Your task to perform on an android device: Show me productivity apps on the Play Store Image 0: 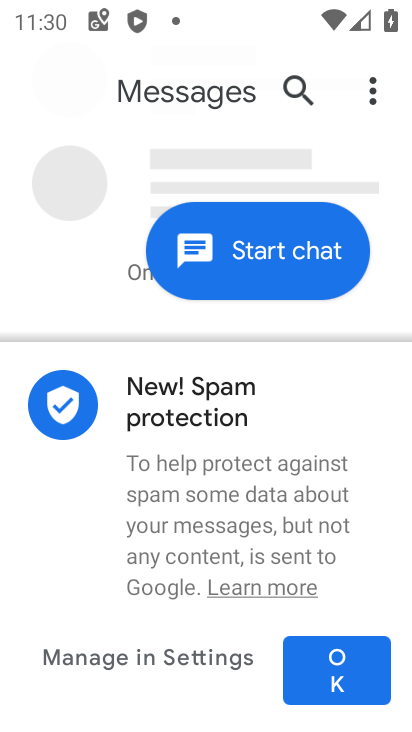
Step 0: press home button
Your task to perform on an android device: Show me productivity apps on the Play Store Image 1: 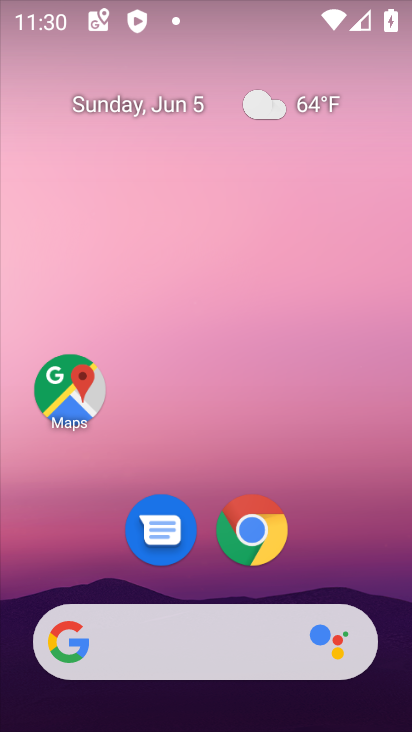
Step 1: drag from (400, 565) to (368, 6)
Your task to perform on an android device: Show me productivity apps on the Play Store Image 2: 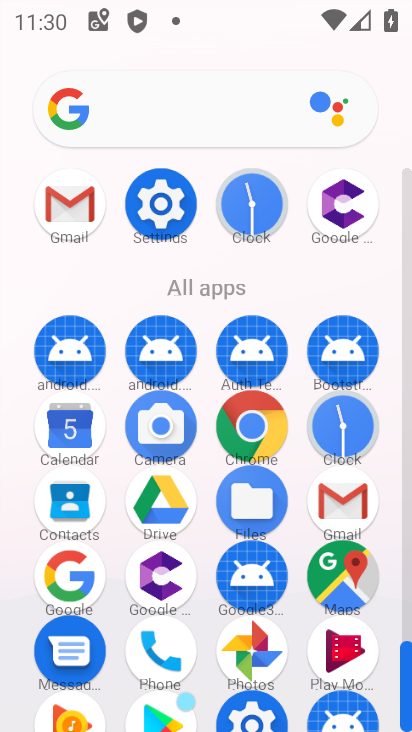
Step 2: drag from (397, 506) to (363, 116)
Your task to perform on an android device: Show me productivity apps on the Play Store Image 3: 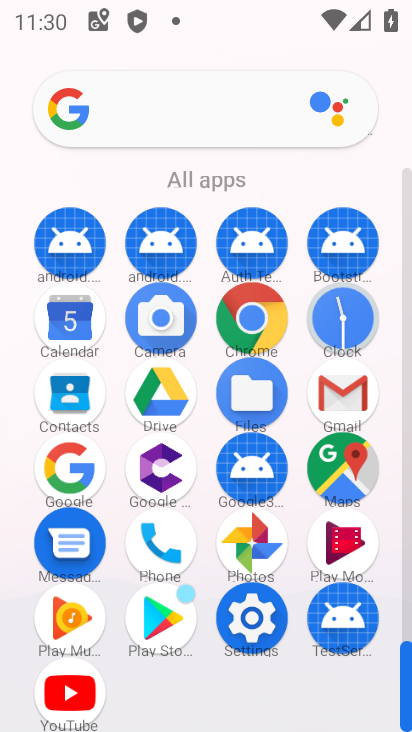
Step 3: click (161, 635)
Your task to perform on an android device: Show me productivity apps on the Play Store Image 4: 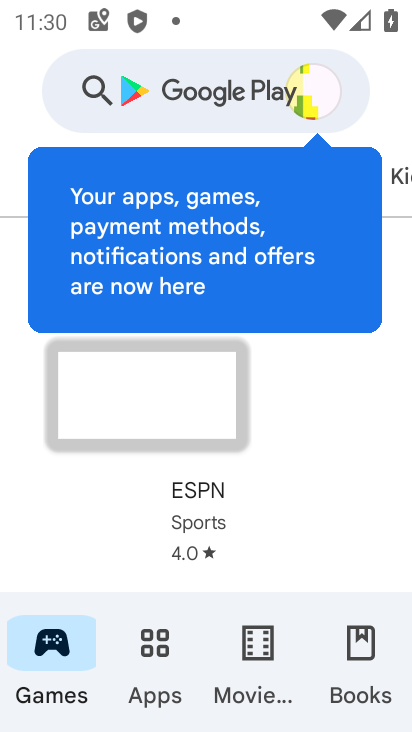
Step 4: click (169, 88)
Your task to perform on an android device: Show me productivity apps on the Play Store Image 5: 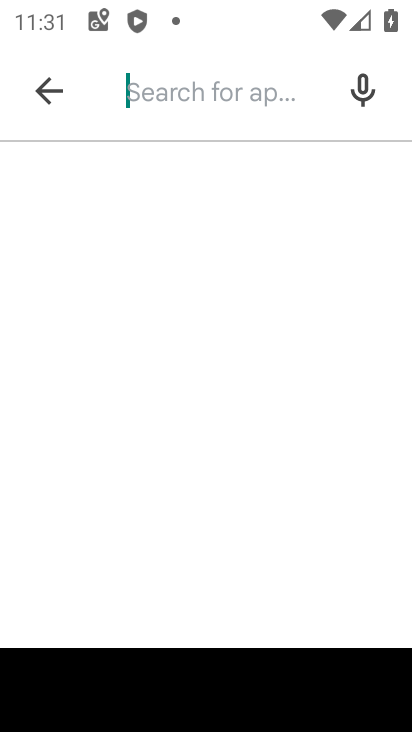
Step 5: type "productivity apps "
Your task to perform on an android device: Show me productivity apps on the Play Store Image 6: 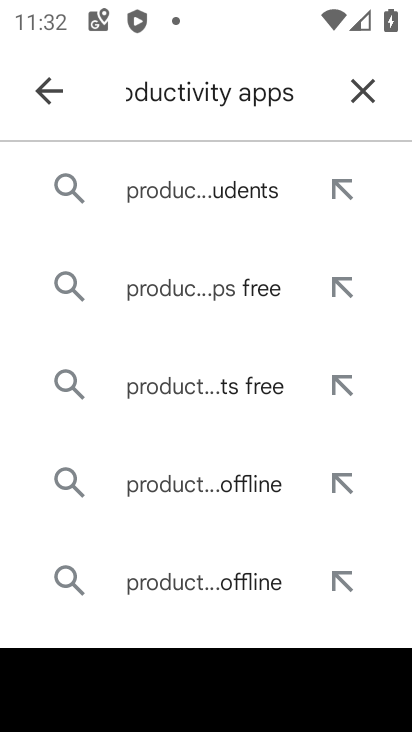
Step 6: press enter
Your task to perform on an android device: Show me productivity apps on the Play Store Image 7: 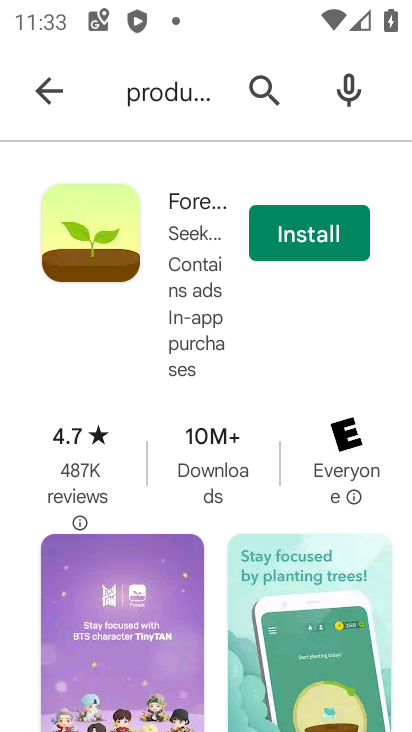
Step 7: task complete